Your task to perform on an android device: toggle improve location accuracy Image 0: 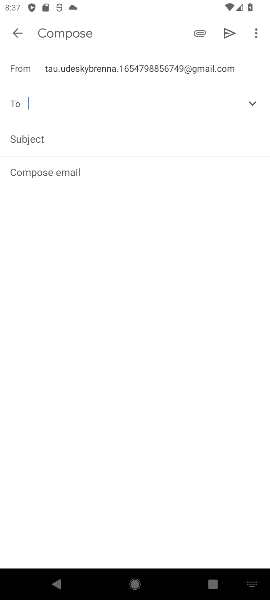
Step 0: press home button
Your task to perform on an android device: toggle improve location accuracy Image 1: 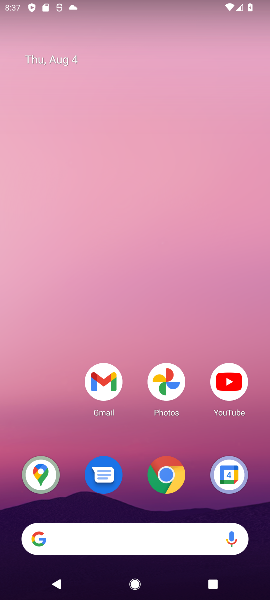
Step 1: drag from (134, 505) to (164, 181)
Your task to perform on an android device: toggle improve location accuracy Image 2: 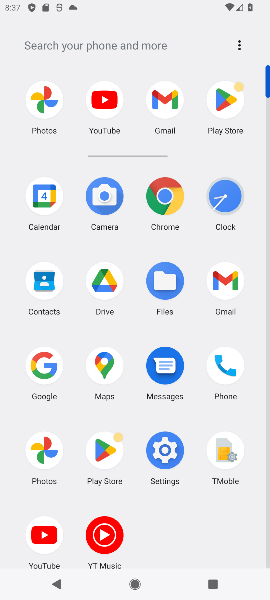
Step 2: click (156, 466)
Your task to perform on an android device: toggle improve location accuracy Image 3: 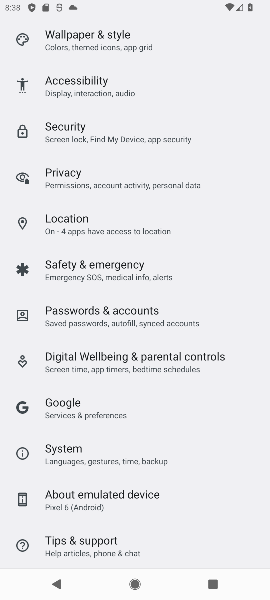
Step 3: drag from (113, 166) to (161, 516)
Your task to perform on an android device: toggle improve location accuracy Image 4: 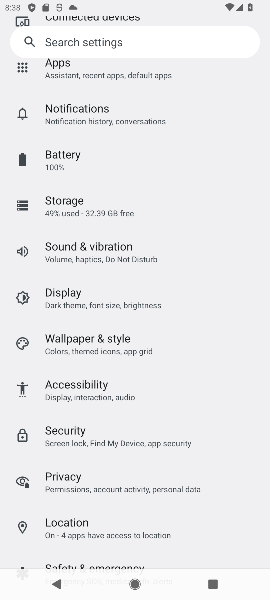
Step 4: drag from (131, 553) to (142, 389)
Your task to perform on an android device: toggle improve location accuracy Image 5: 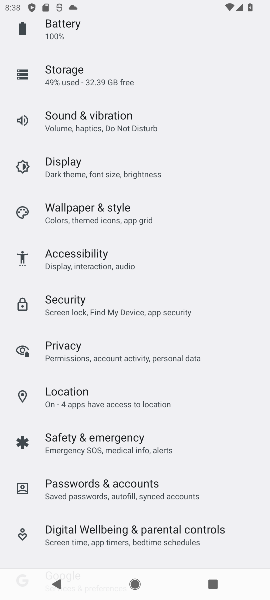
Step 5: drag from (130, 484) to (179, 119)
Your task to perform on an android device: toggle improve location accuracy Image 6: 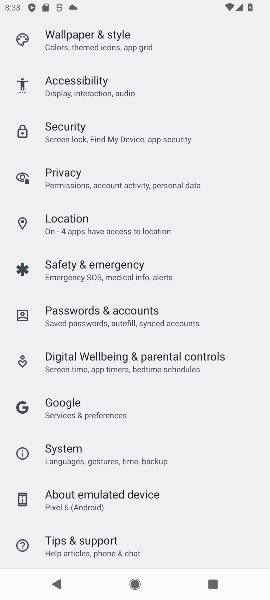
Step 6: drag from (118, 140) to (175, 378)
Your task to perform on an android device: toggle improve location accuracy Image 7: 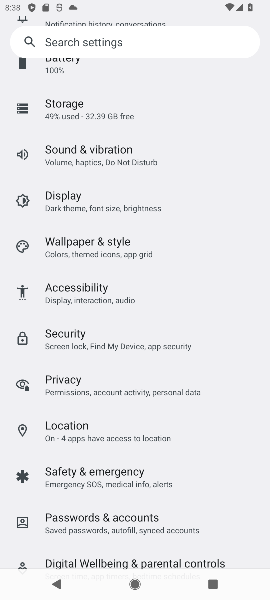
Step 7: drag from (155, 187) to (168, 428)
Your task to perform on an android device: toggle improve location accuracy Image 8: 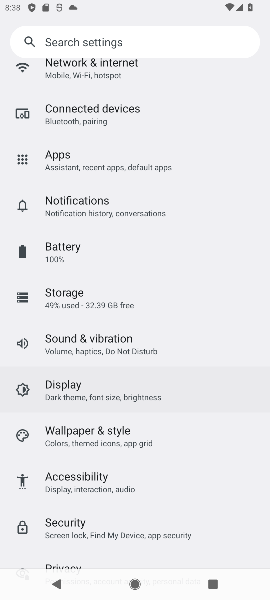
Step 8: drag from (160, 396) to (192, 163)
Your task to perform on an android device: toggle improve location accuracy Image 9: 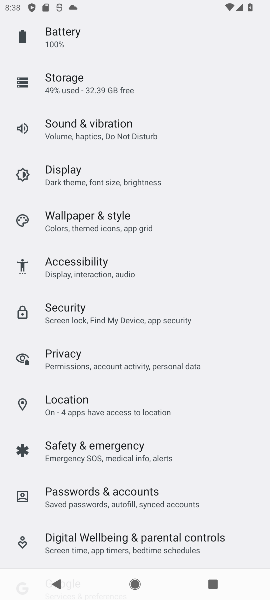
Step 9: drag from (141, 268) to (190, 105)
Your task to perform on an android device: toggle improve location accuracy Image 10: 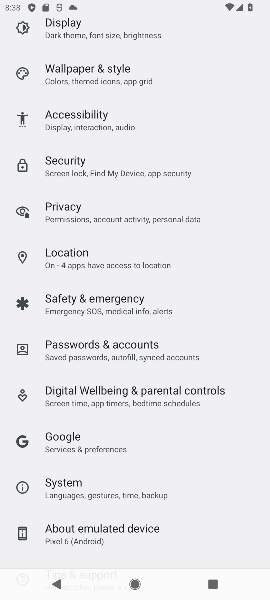
Step 10: drag from (133, 428) to (131, 250)
Your task to perform on an android device: toggle improve location accuracy Image 11: 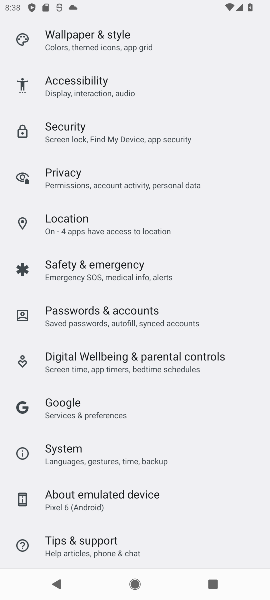
Step 11: drag from (133, 508) to (125, 288)
Your task to perform on an android device: toggle improve location accuracy Image 12: 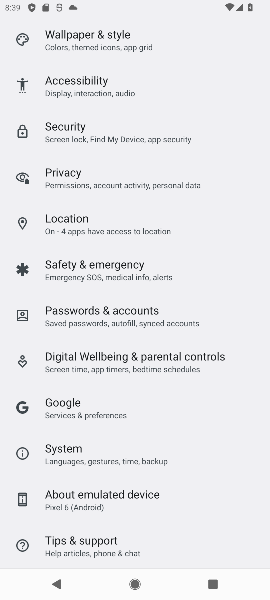
Step 12: click (57, 220)
Your task to perform on an android device: toggle improve location accuracy Image 13: 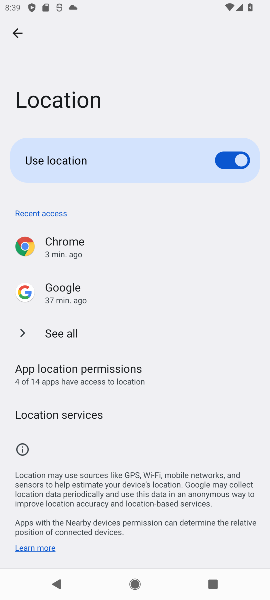
Step 13: click (84, 423)
Your task to perform on an android device: toggle improve location accuracy Image 14: 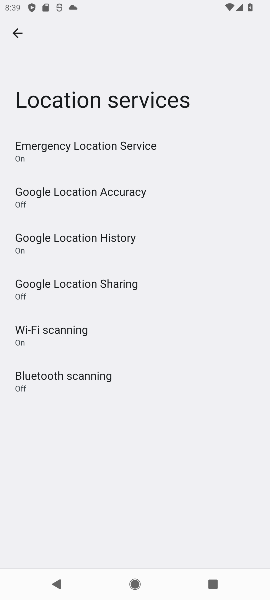
Step 14: drag from (98, 469) to (130, 240)
Your task to perform on an android device: toggle improve location accuracy Image 15: 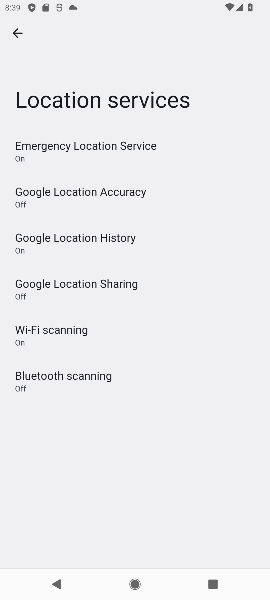
Step 15: click (85, 197)
Your task to perform on an android device: toggle improve location accuracy Image 16: 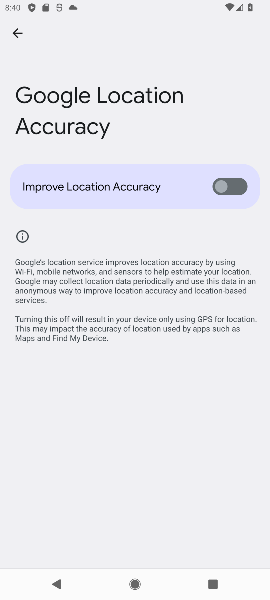
Step 16: drag from (129, 450) to (132, 309)
Your task to perform on an android device: toggle improve location accuracy Image 17: 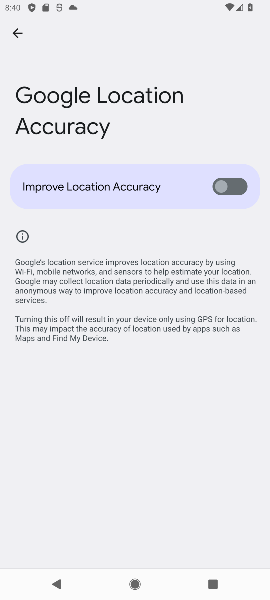
Step 17: drag from (156, 97) to (139, 360)
Your task to perform on an android device: toggle improve location accuracy Image 18: 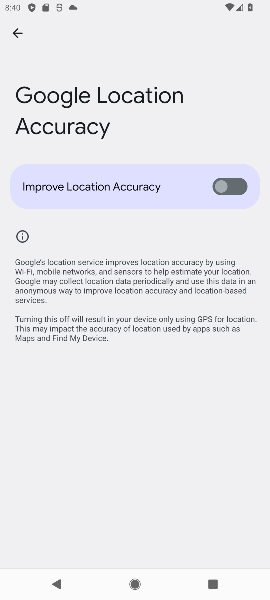
Step 18: drag from (168, 376) to (188, 200)
Your task to perform on an android device: toggle improve location accuracy Image 19: 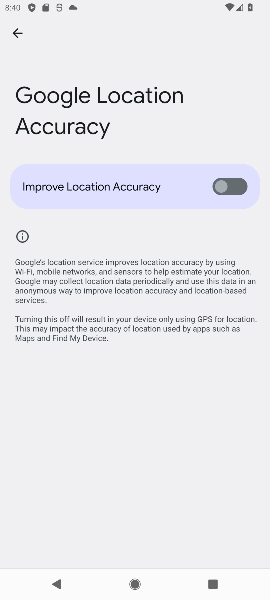
Step 19: drag from (135, 373) to (130, 182)
Your task to perform on an android device: toggle improve location accuracy Image 20: 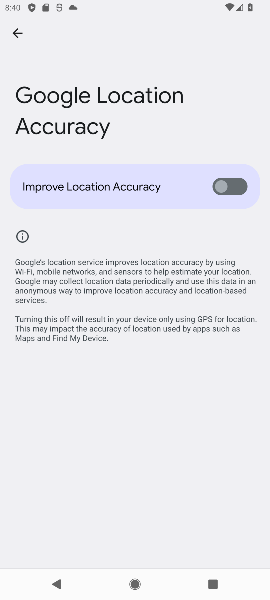
Step 20: click (197, 190)
Your task to perform on an android device: toggle improve location accuracy Image 21: 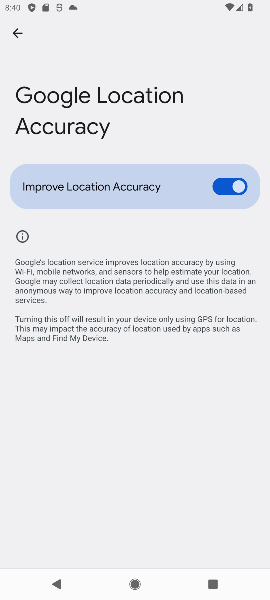
Step 21: task complete